Your task to perform on an android device: delete browsing data in the chrome app Image 0: 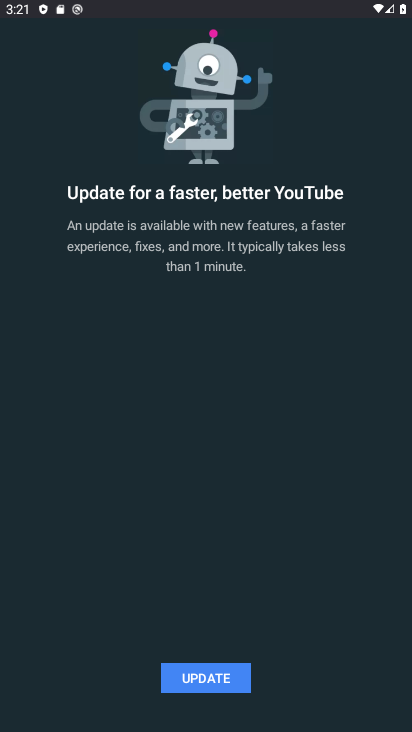
Step 0: drag from (267, 671) to (270, 580)
Your task to perform on an android device: delete browsing data in the chrome app Image 1: 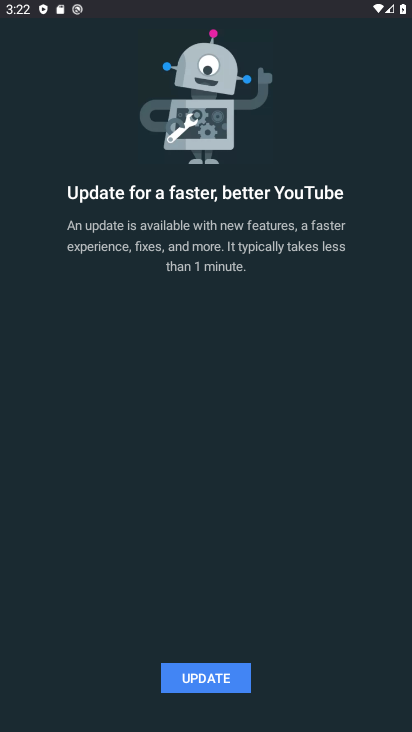
Step 1: press home button
Your task to perform on an android device: delete browsing data in the chrome app Image 2: 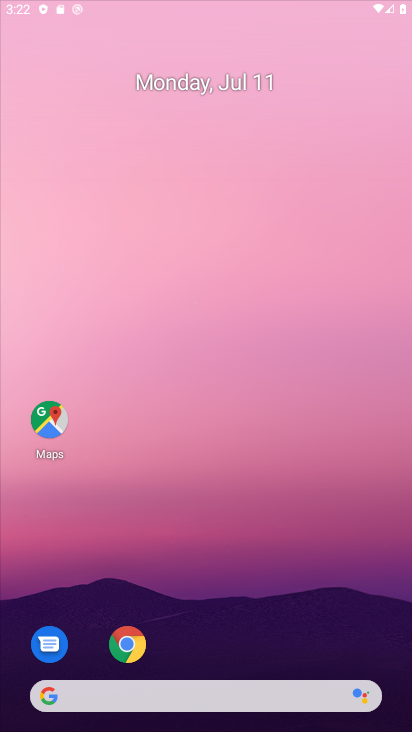
Step 2: drag from (246, 651) to (246, 276)
Your task to perform on an android device: delete browsing data in the chrome app Image 3: 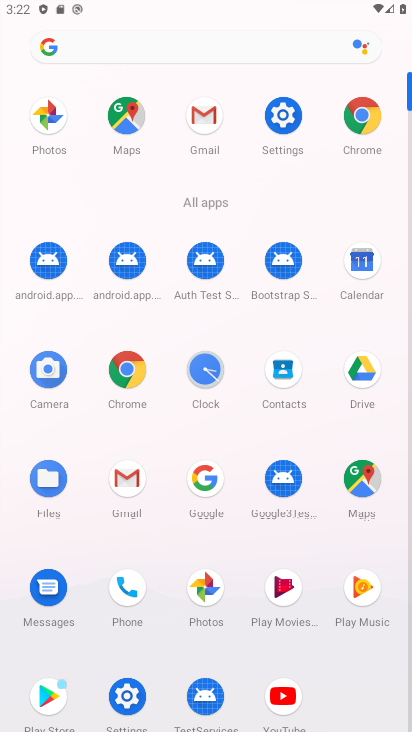
Step 3: click (358, 107)
Your task to perform on an android device: delete browsing data in the chrome app Image 4: 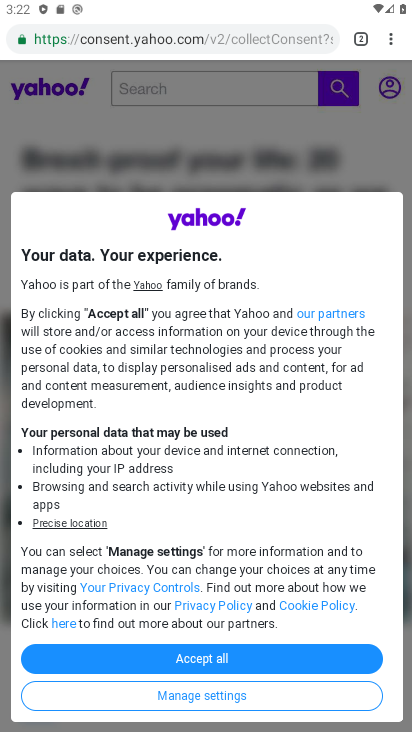
Step 4: click (397, 27)
Your task to perform on an android device: delete browsing data in the chrome app Image 5: 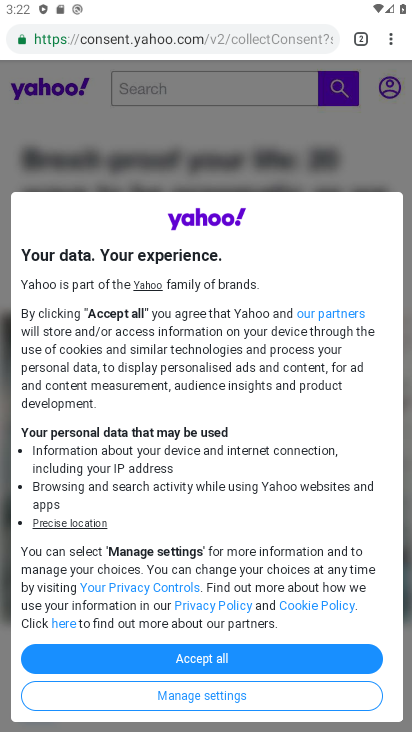
Step 5: click (398, 30)
Your task to perform on an android device: delete browsing data in the chrome app Image 6: 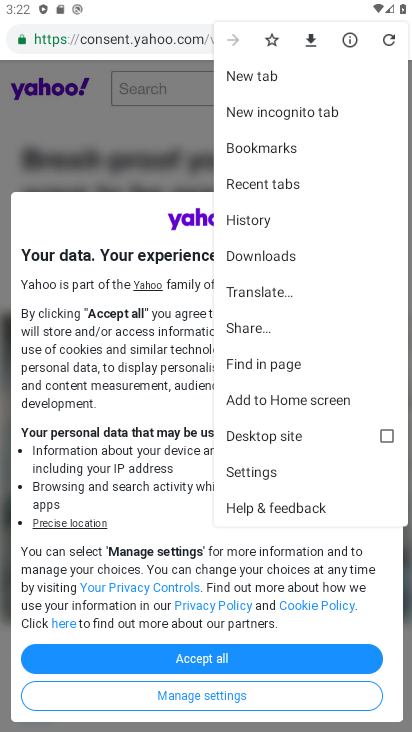
Step 6: click (286, 479)
Your task to perform on an android device: delete browsing data in the chrome app Image 7: 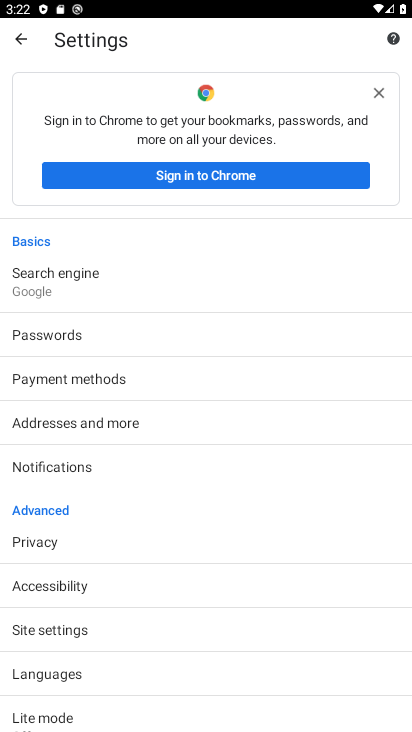
Step 7: drag from (122, 649) to (202, 292)
Your task to perform on an android device: delete browsing data in the chrome app Image 8: 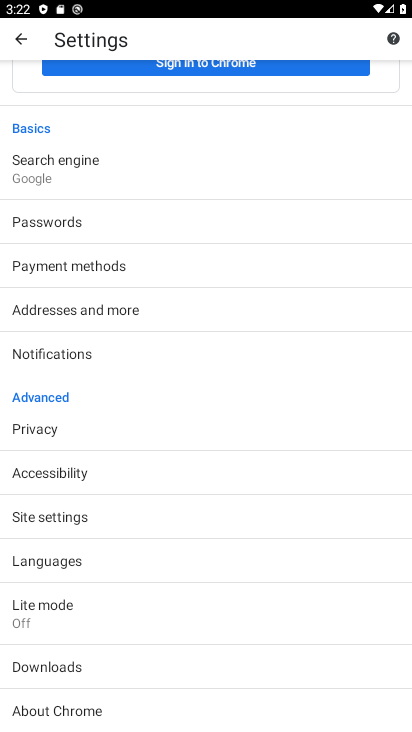
Step 8: drag from (114, 668) to (155, 442)
Your task to perform on an android device: delete browsing data in the chrome app Image 9: 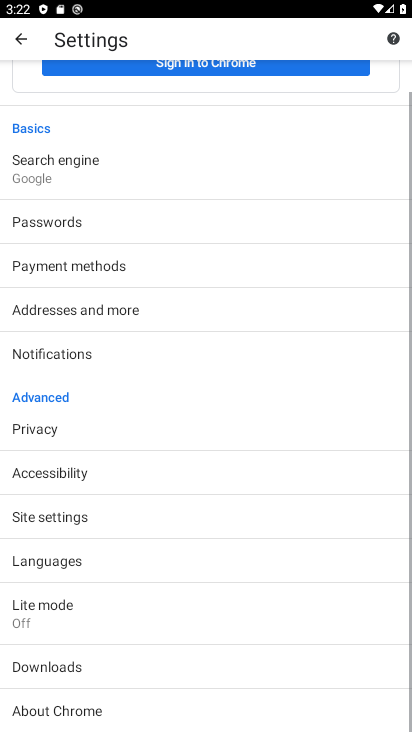
Step 9: click (61, 428)
Your task to perform on an android device: delete browsing data in the chrome app Image 10: 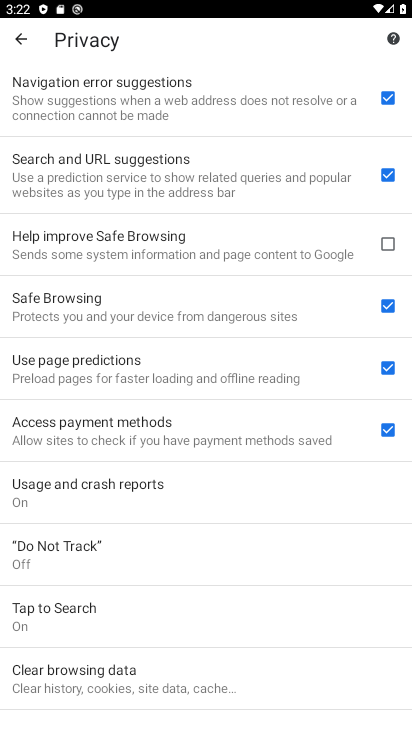
Step 10: drag from (172, 646) to (253, 221)
Your task to perform on an android device: delete browsing data in the chrome app Image 11: 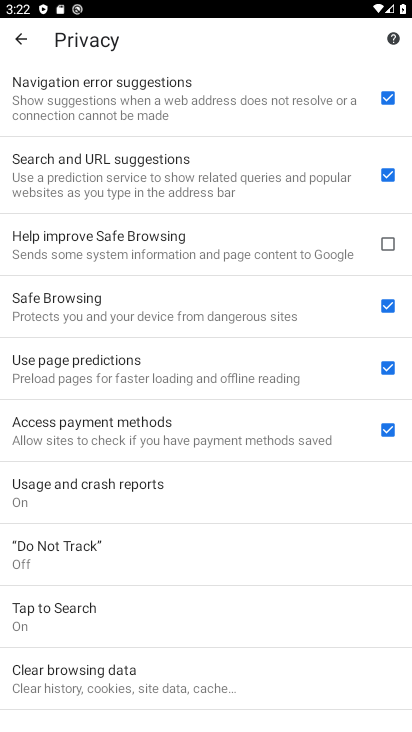
Step 11: click (106, 676)
Your task to perform on an android device: delete browsing data in the chrome app Image 12: 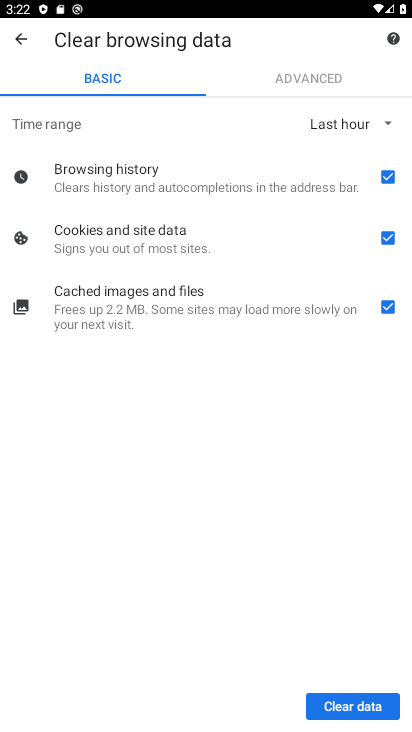
Step 12: click (372, 710)
Your task to perform on an android device: delete browsing data in the chrome app Image 13: 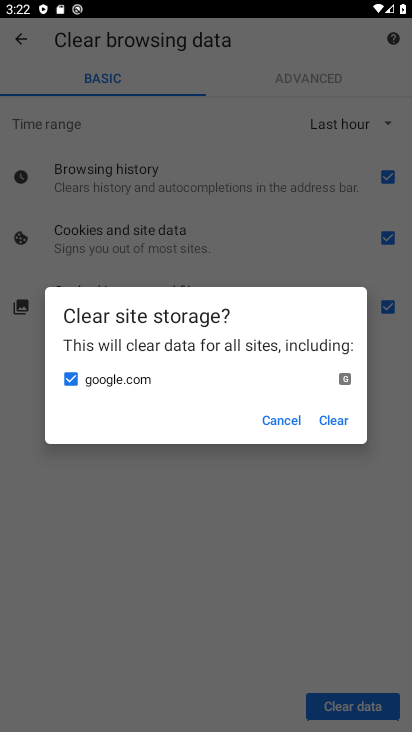
Step 13: click (349, 422)
Your task to perform on an android device: delete browsing data in the chrome app Image 14: 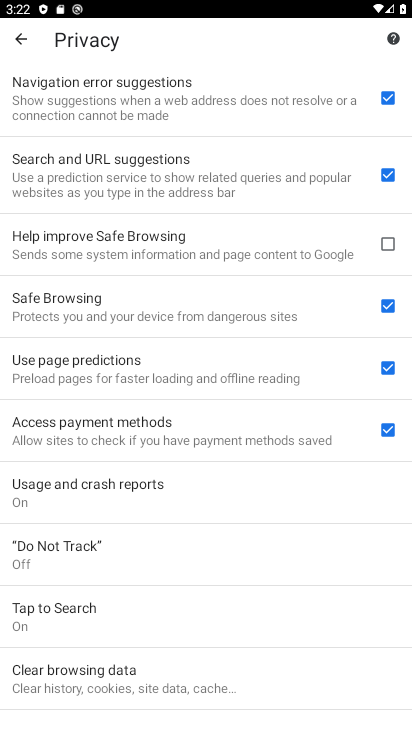
Step 14: task complete